Your task to perform on an android device: open chrome and create a bookmark for the current page Image 0: 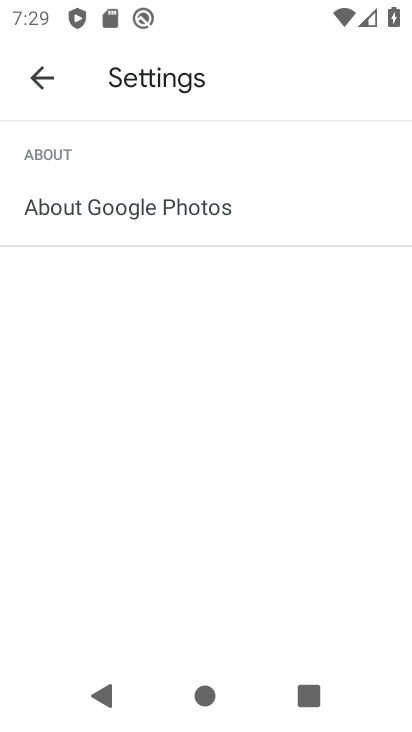
Step 0: press home button
Your task to perform on an android device: open chrome and create a bookmark for the current page Image 1: 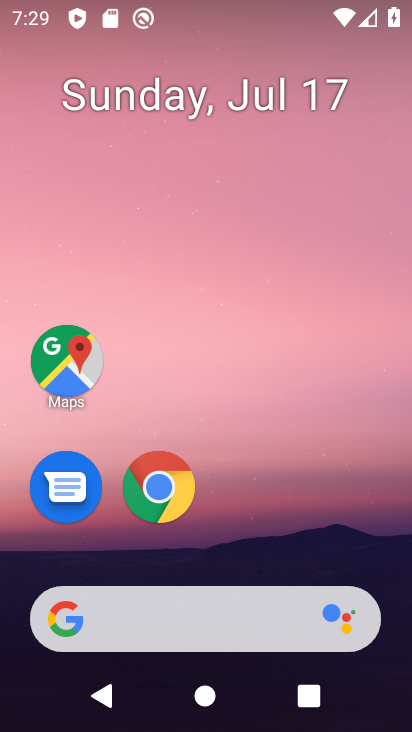
Step 1: drag from (321, 534) to (339, 86)
Your task to perform on an android device: open chrome and create a bookmark for the current page Image 2: 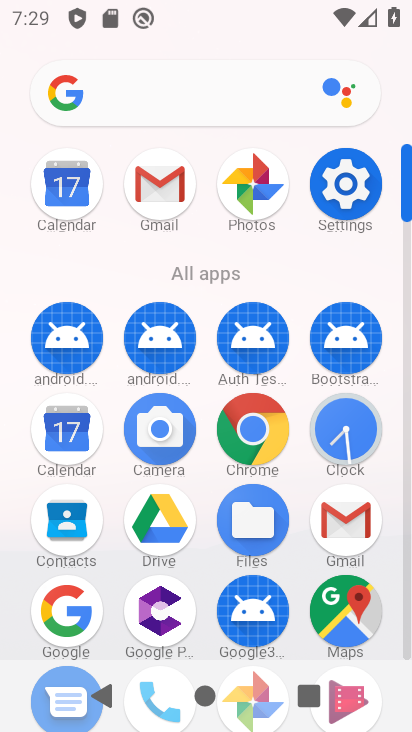
Step 2: click (269, 432)
Your task to perform on an android device: open chrome and create a bookmark for the current page Image 3: 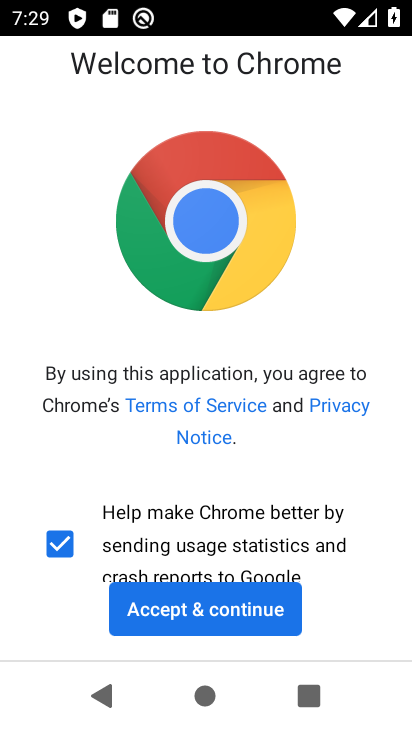
Step 3: click (200, 608)
Your task to perform on an android device: open chrome and create a bookmark for the current page Image 4: 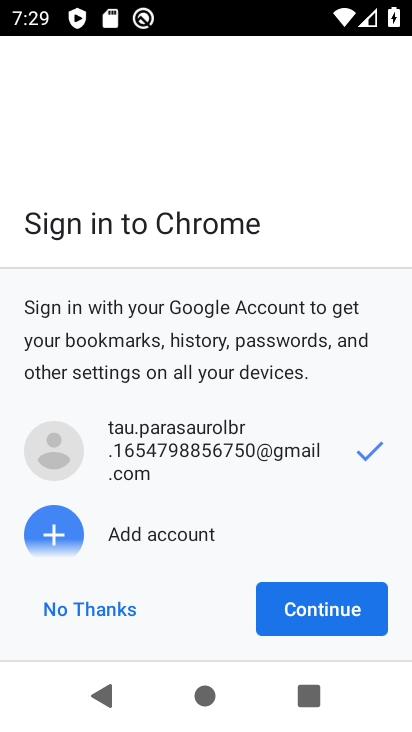
Step 4: click (288, 617)
Your task to perform on an android device: open chrome and create a bookmark for the current page Image 5: 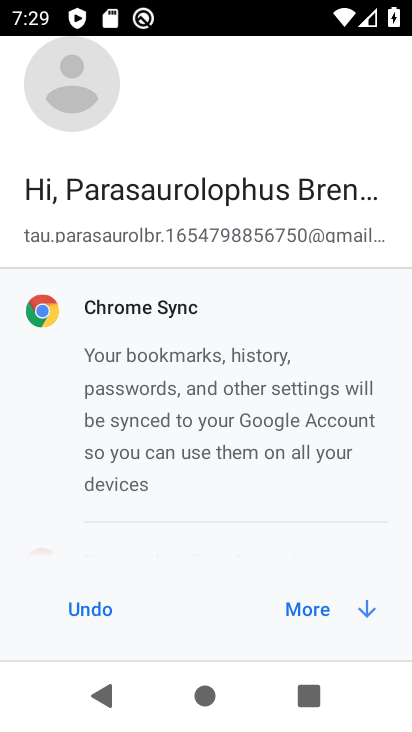
Step 5: click (311, 610)
Your task to perform on an android device: open chrome and create a bookmark for the current page Image 6: 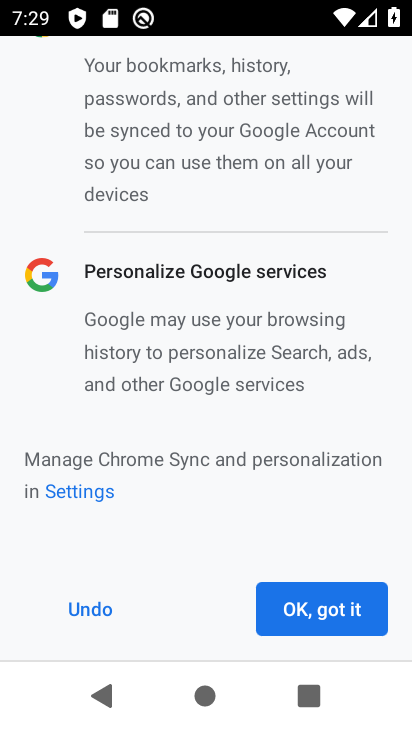
Step 6: click (311, 610)
Your task to perform on an android device: open chrome and create a bookmark for the current page Image 7: 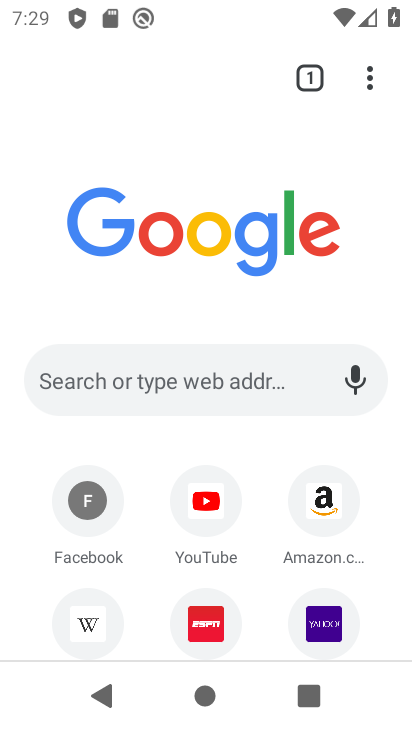
Step 7: click (368, 79)
Your task to perform on an android device: open chrome and create a bookmark for the current page Image 8: 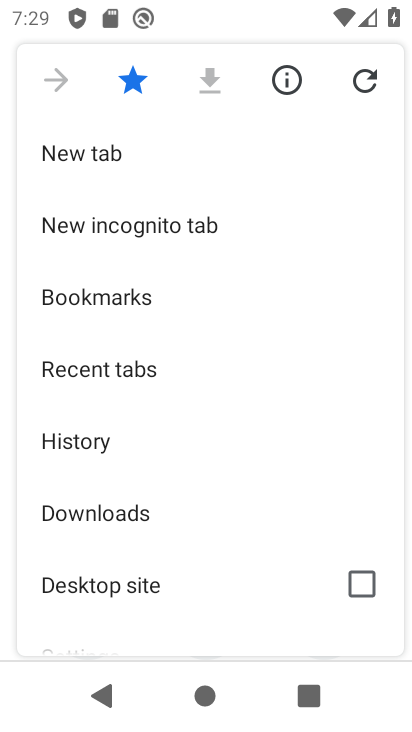
Step 8: task complete